Your task to perform on an android device: Search for "logitech g pro" on walmart.com, select the first entry, add it to the cart, then select checkout. Image 0: 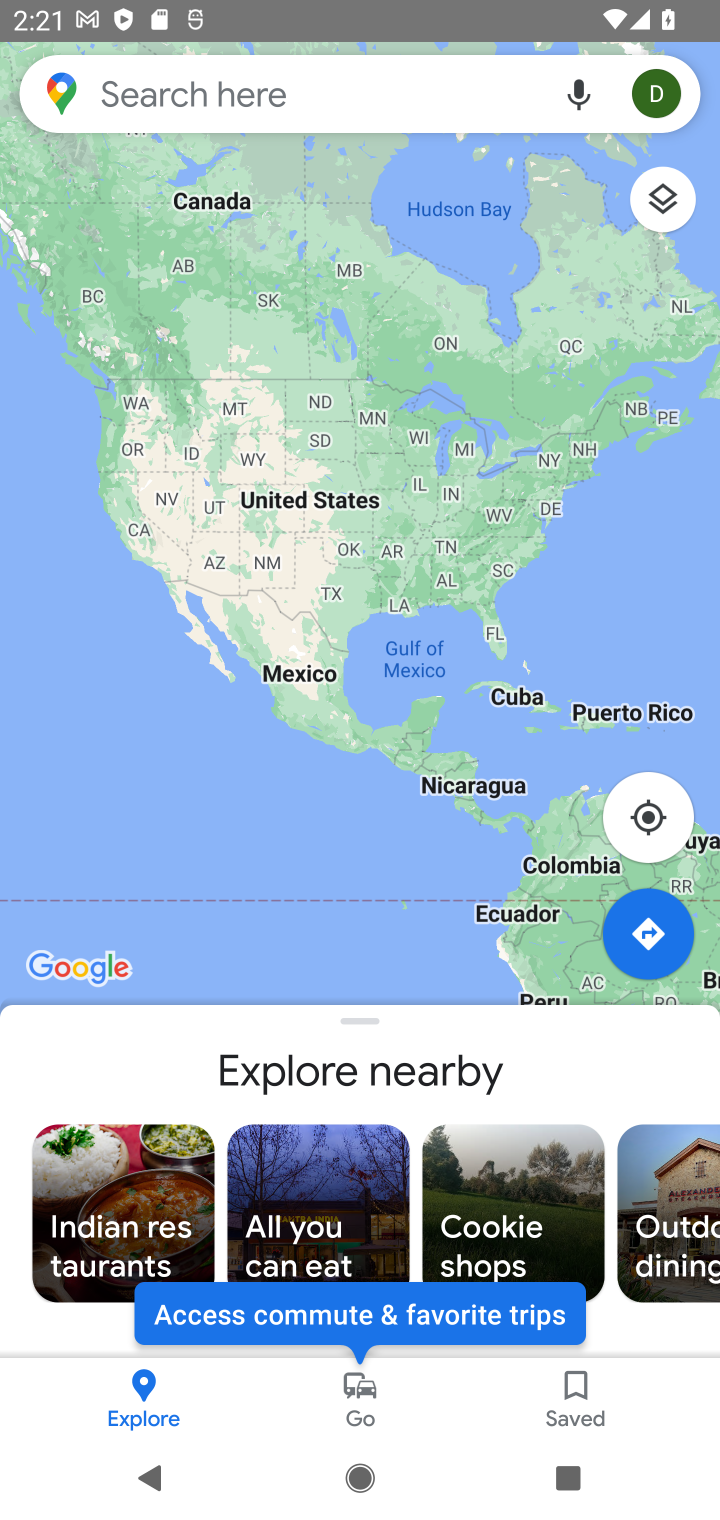
Step 0: press home button
Your task to perform on an android device: Search for "logitech g pro" on walmart.com, select the first entry, add it to the cart, then select checkout. Image 1: 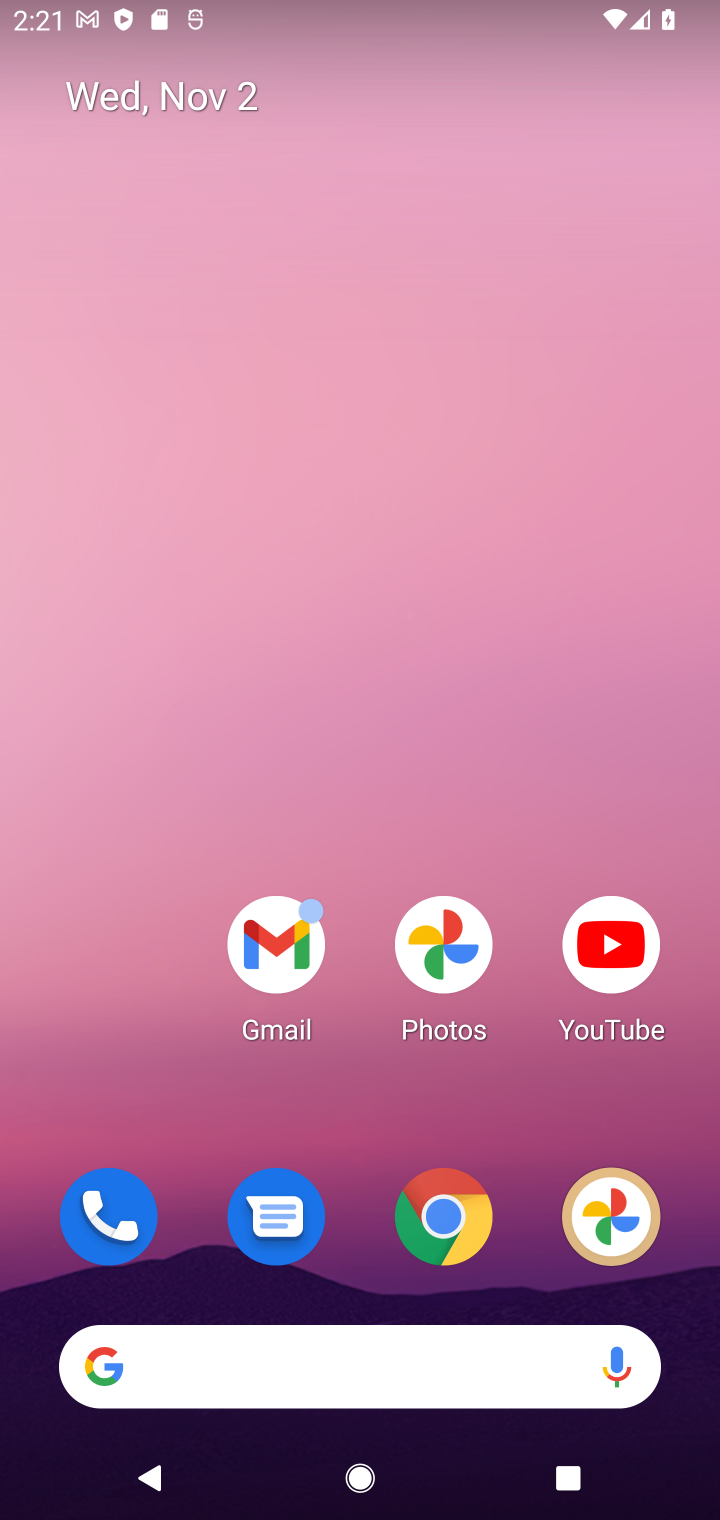
Step 1: click (442, 1228)
Your task to perform on an android device: Search for "logitech g pro" on walmart.com, select the first entry, add it to the cart, then select checkout. Image 2: 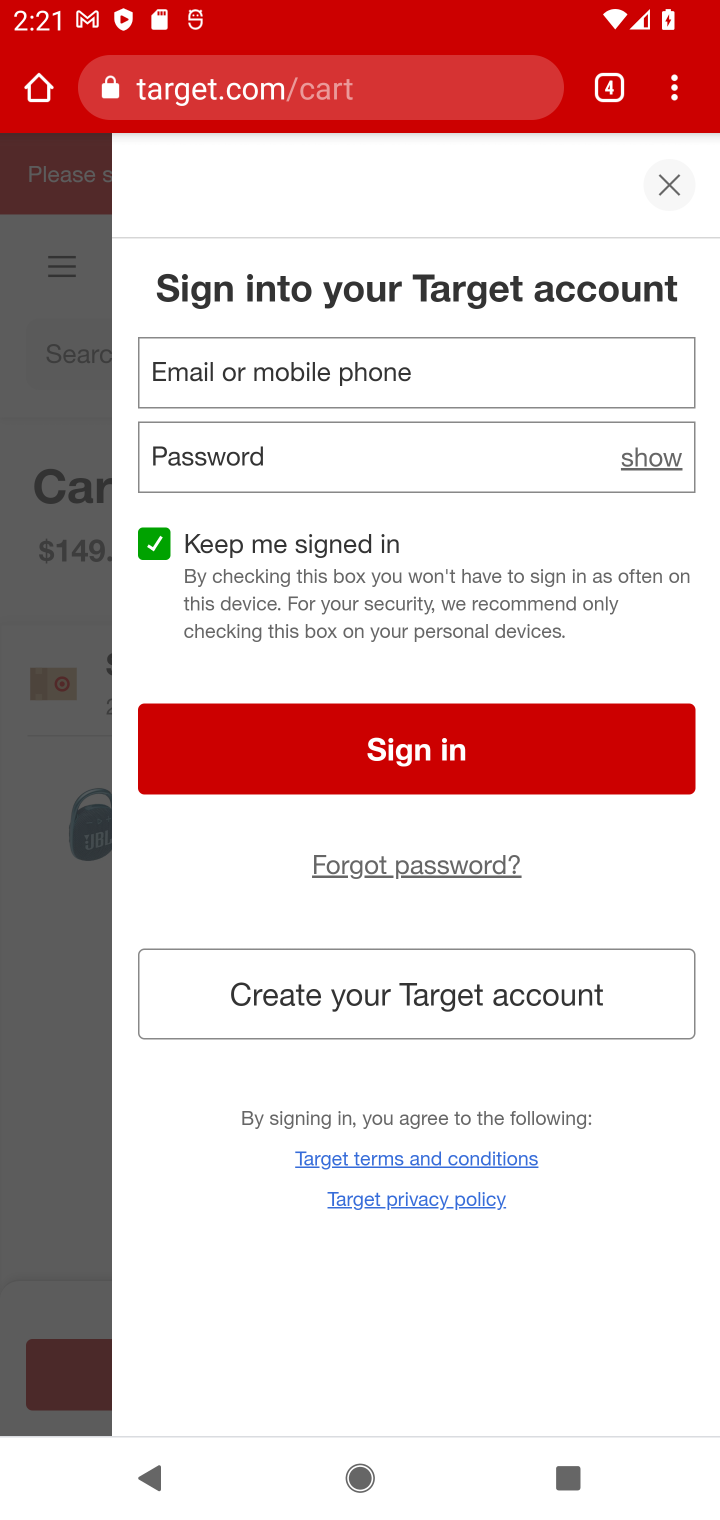
Step 2: click (595, 90)
Your task to perform on an android device: Search for "logitech g pro" on walmart.com, select the first entry, add it to the cart, then select checkout. Image 3: 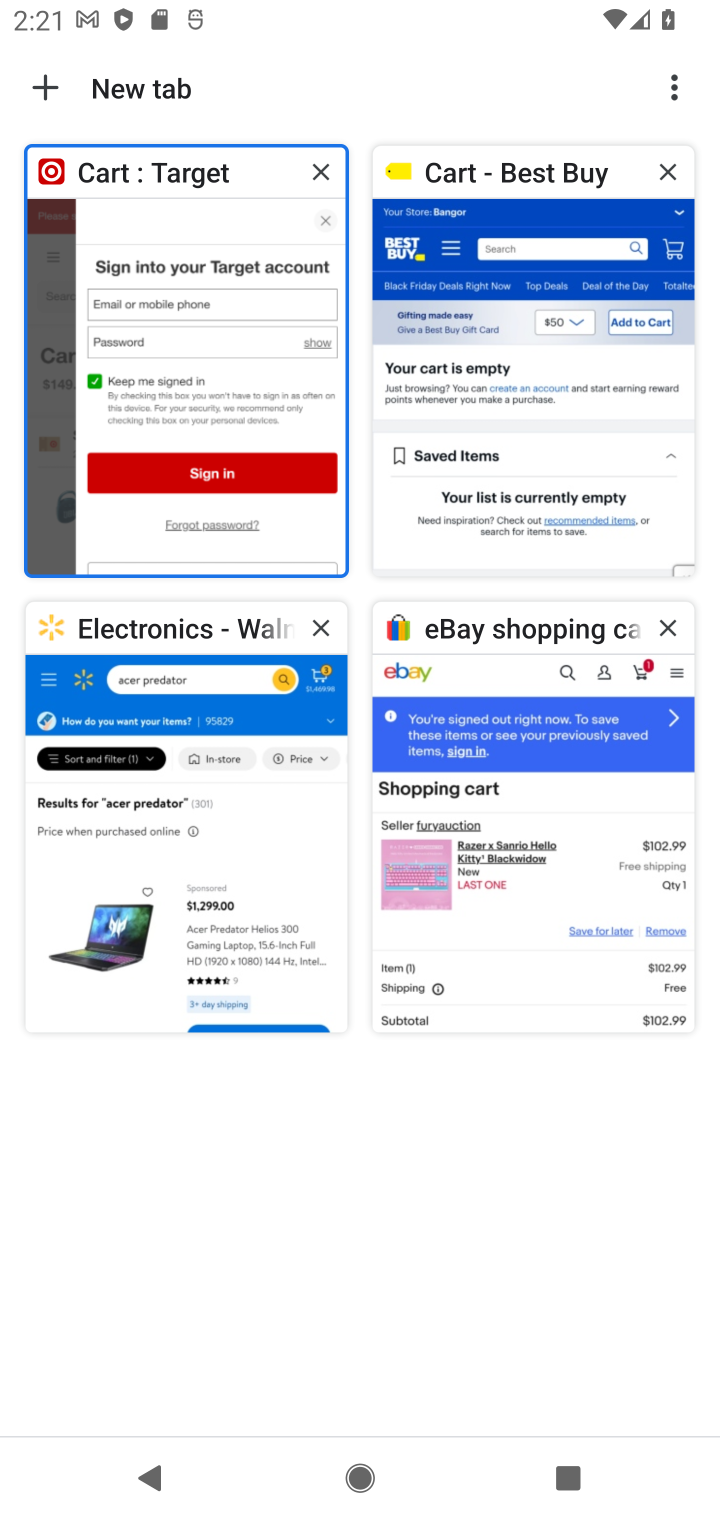
Step 3: click (182, 754)
Your task to perform on an android device: Search for "logitech g pro" on walmart.com, select the first entry, add it to the cart, then select checkout. Image 4: 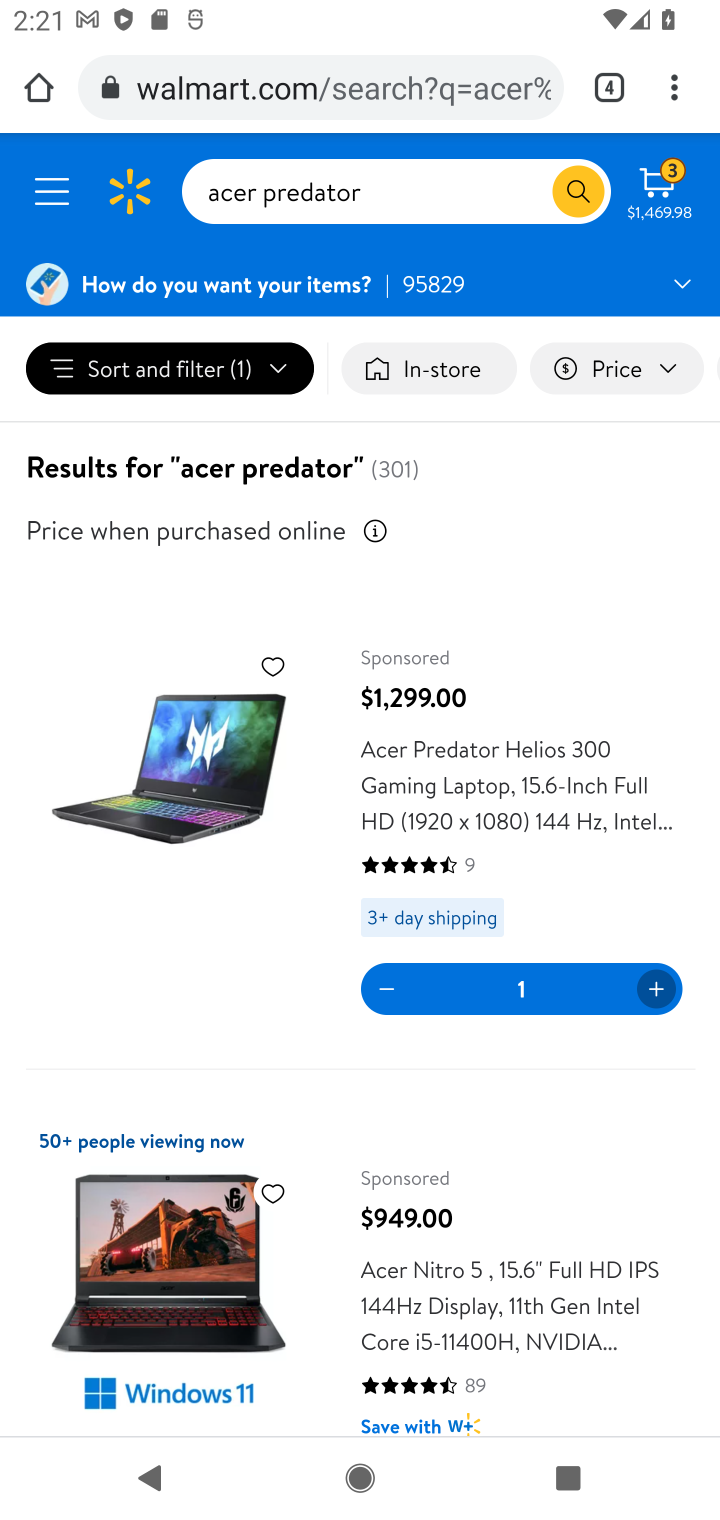
Step 4: click (328, 191)
Your task to perform on an android device: Search for "logitech g pro" on walmart.com, select the first entry, add it to the cart, then select checkout. Image 5: 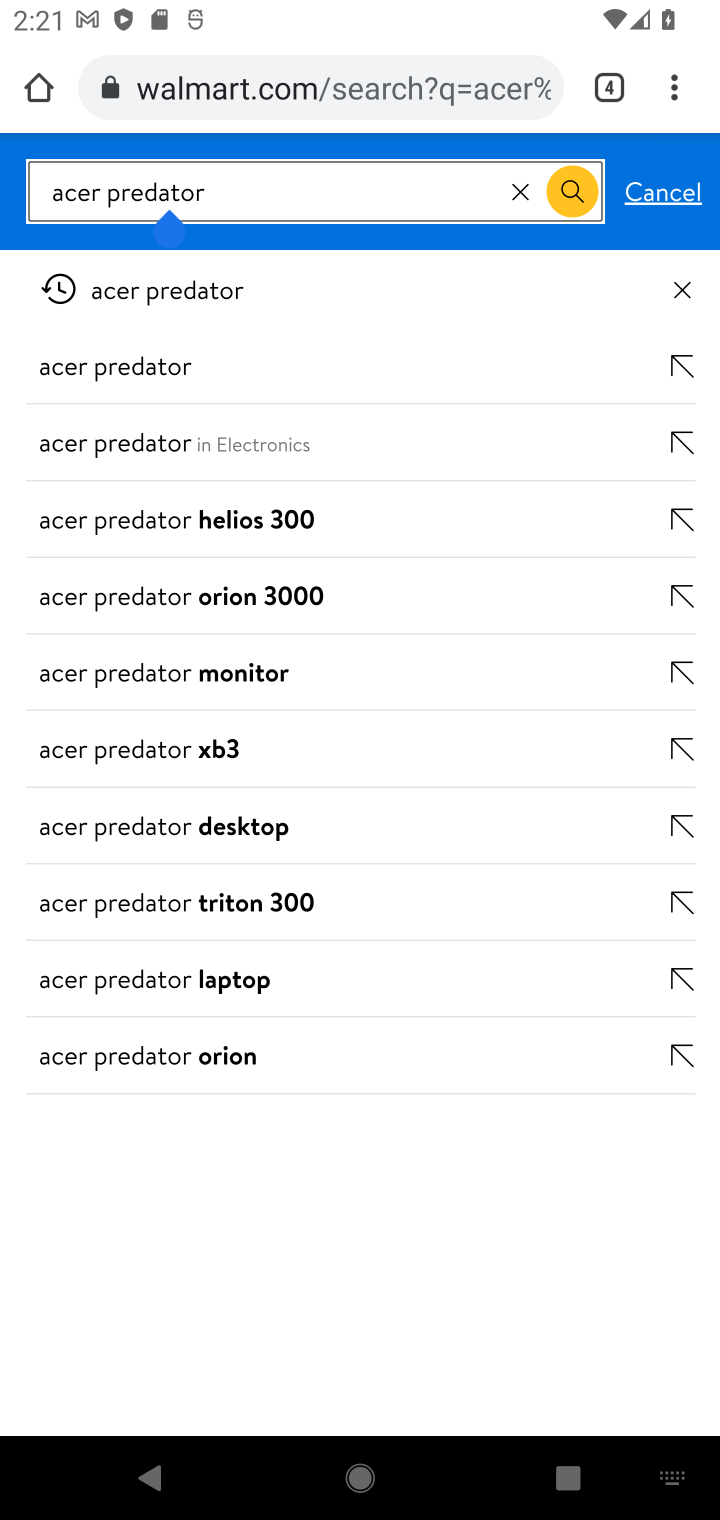
Step 5: click (513, 186)
Your task to perform on an android device: Search for "logitech g pro" on walmart.com, select the first entry, add it to the cart, then select checkout. Image 6: 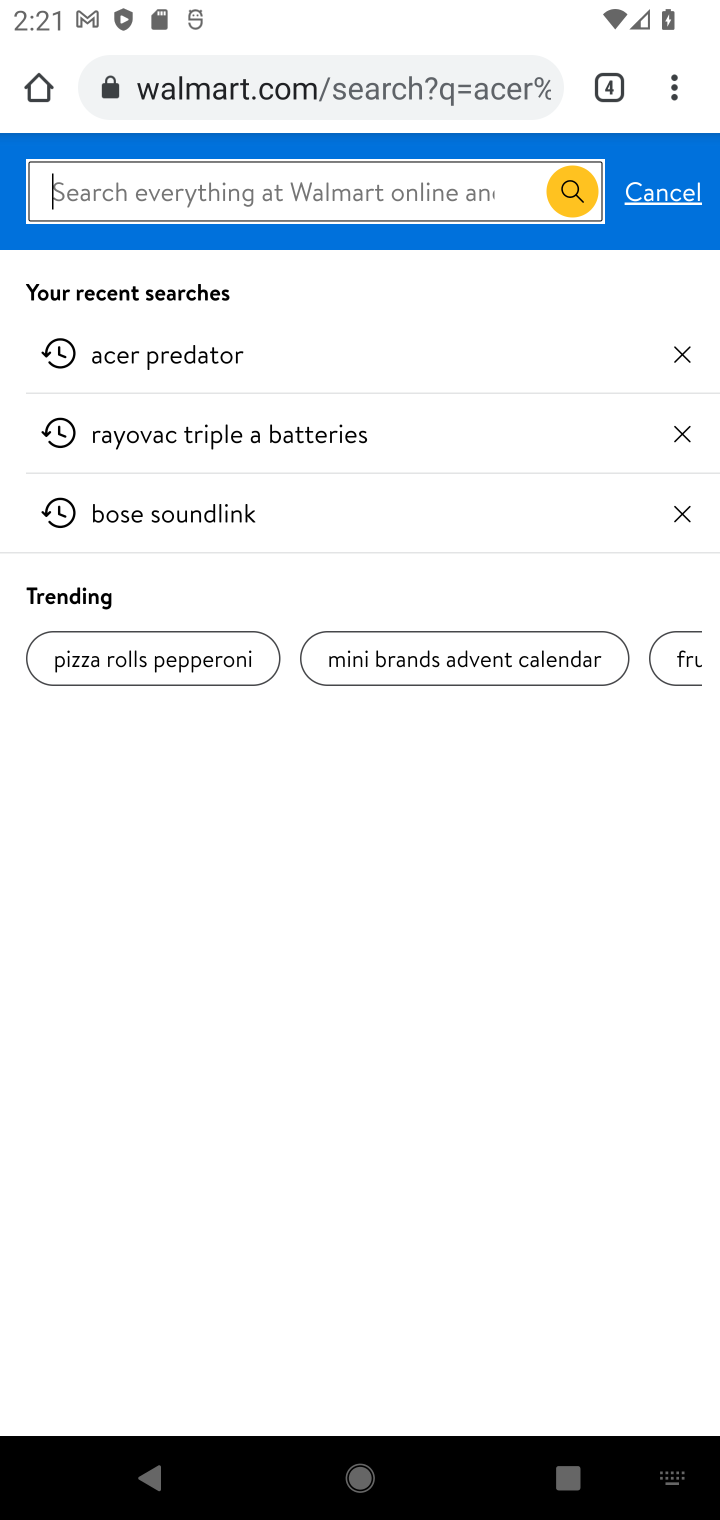
Step 6: type "logitech g pro"
Your task to perform on an android device: Search for "logitech g pro" on walmart.com, select the first entry, add it to the cart, then select checkout. Image 7: 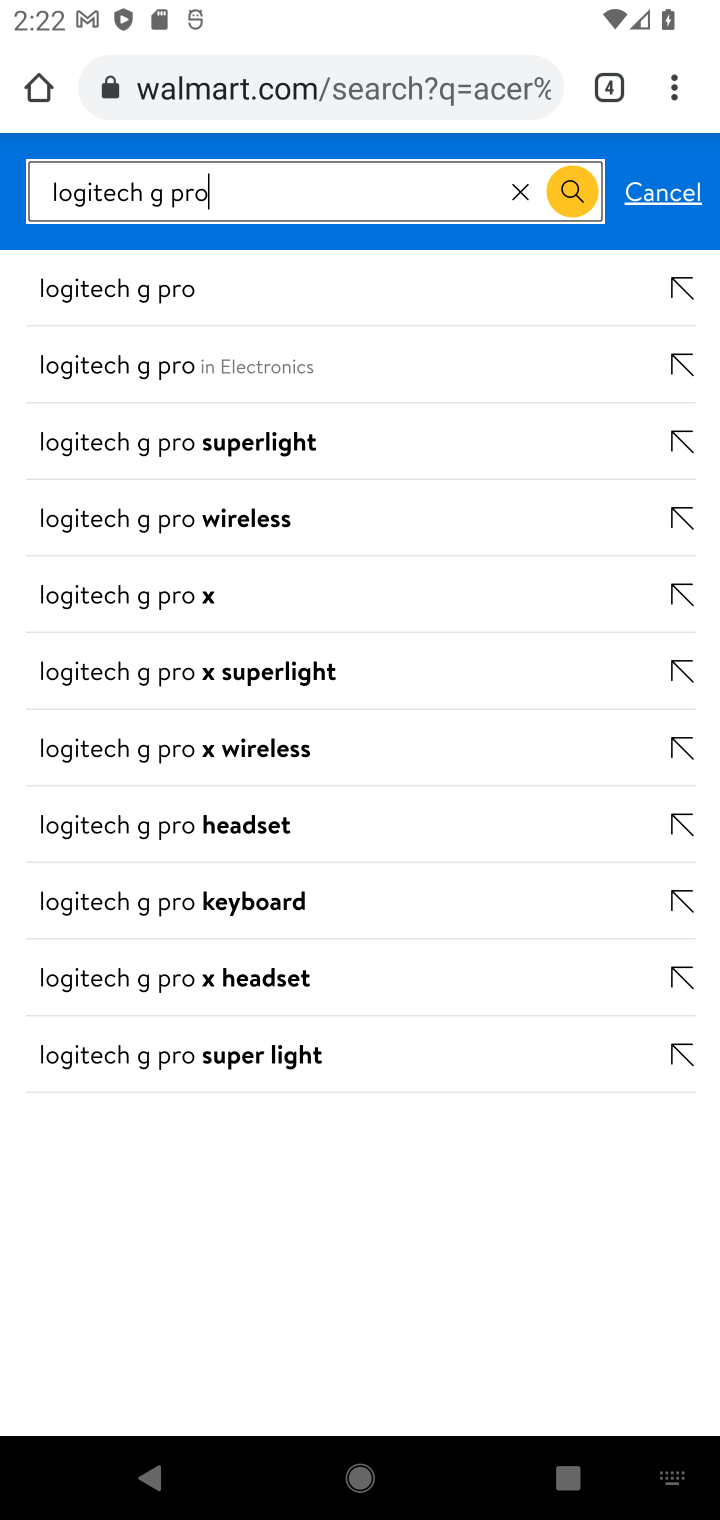
Step 7: click (185, 373)
Your task to perform on an android device: Search for "logitech g pro" on walmart.com, select the first entry, add it to the cart, then select checkout. Image 8: 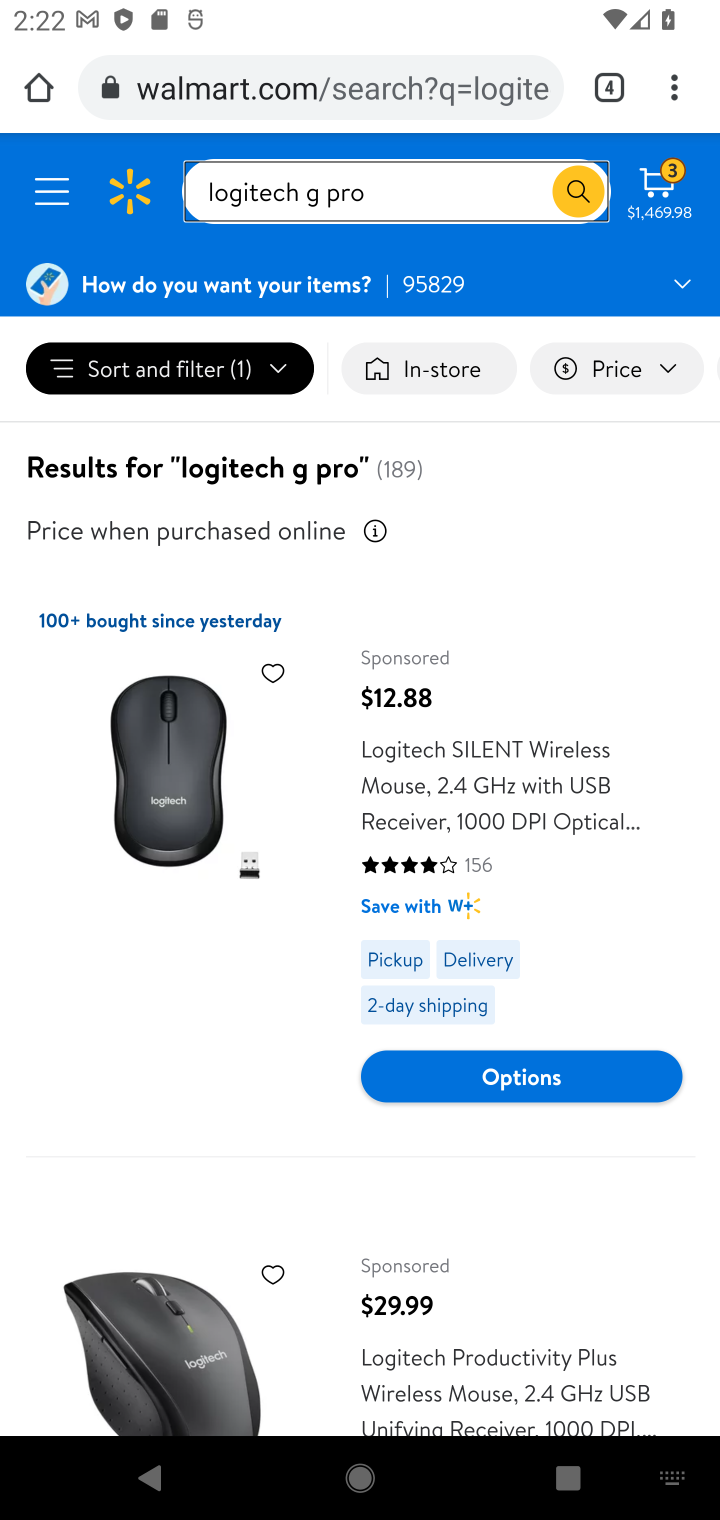
Step 8: click (502, 864)
Your task to perform on an android device: Search for "logitech g pro" on walmart.com, select the first entry, add it to the cart, then select checkout. Image 9: 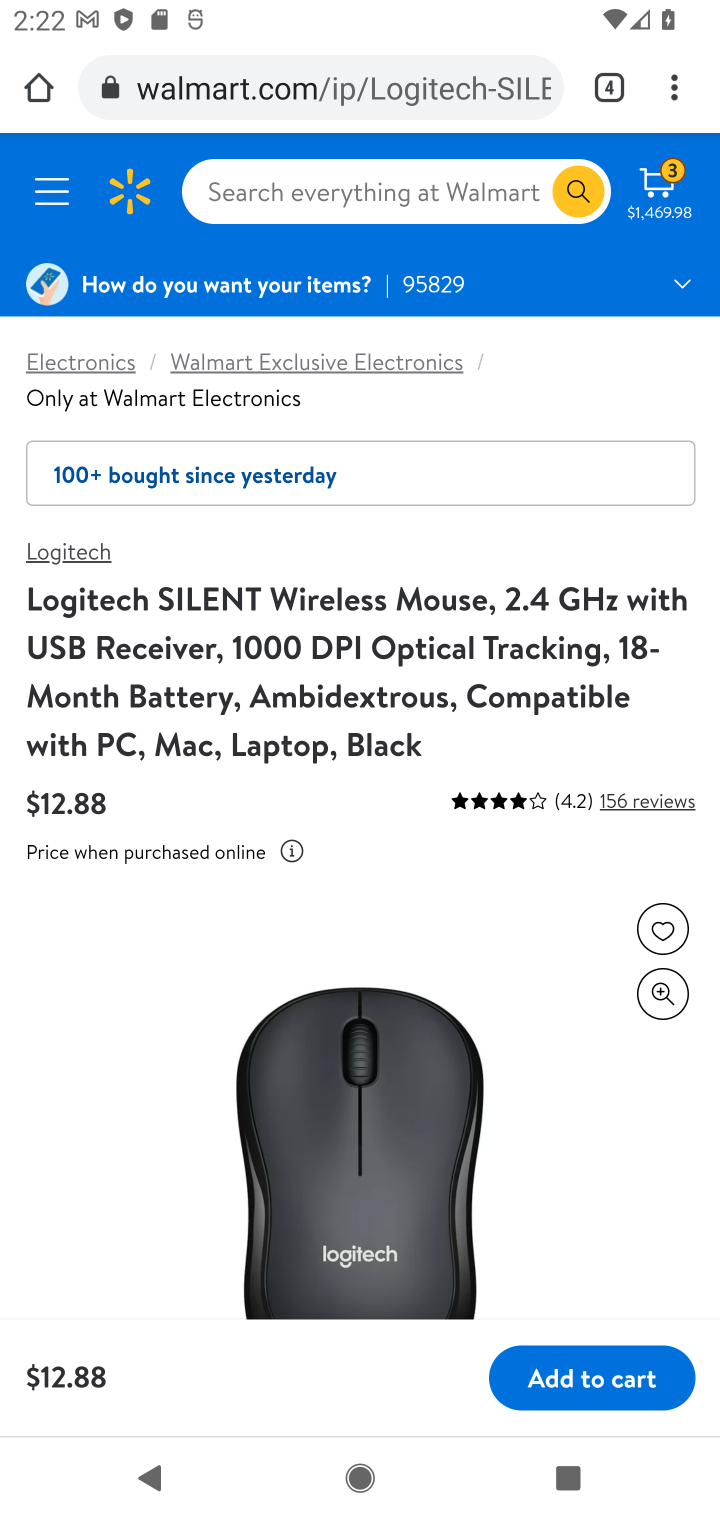
Step 9: click (562, 1387)
Your task to perform on an android device: Search for "logitech g pro" on walmart.com, select the first entry, add it to the cart, then select checkout. Image 10: 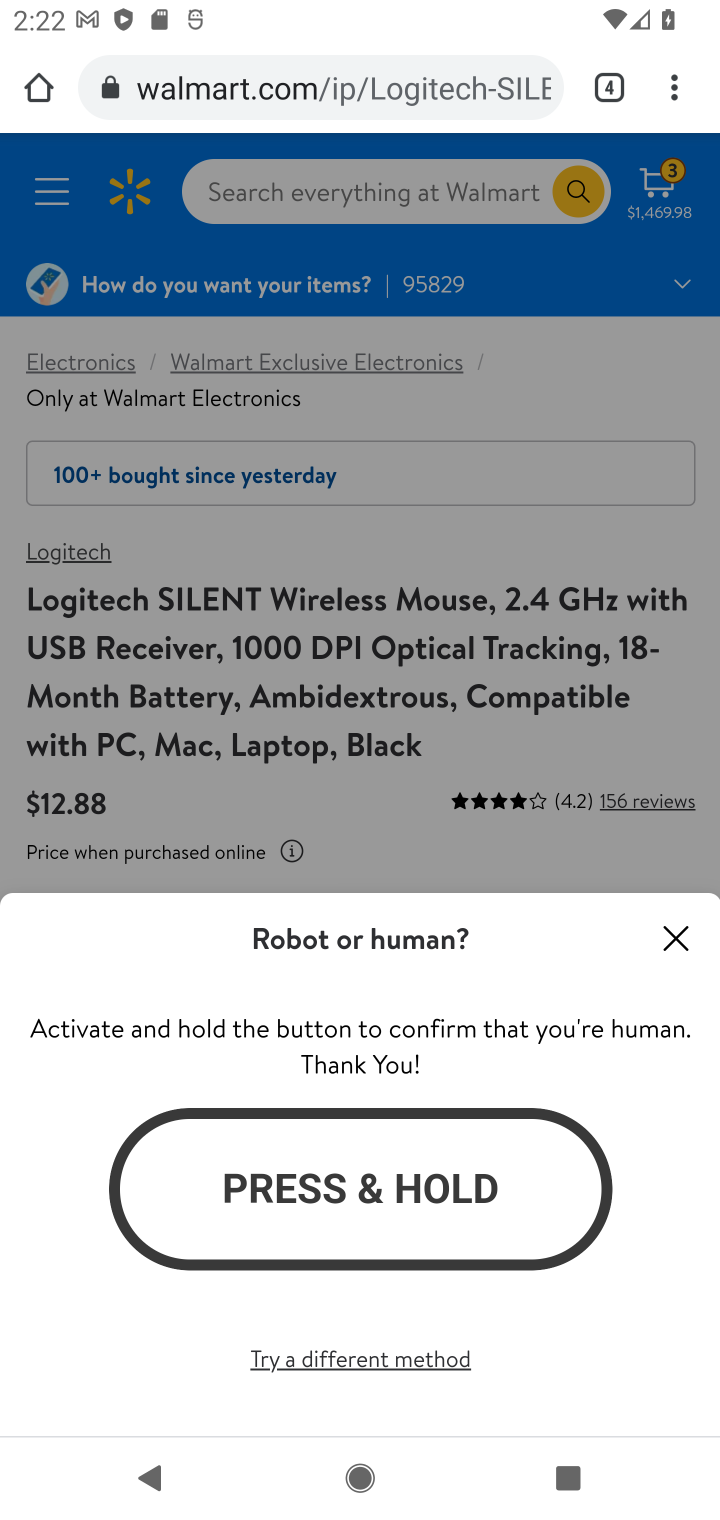
Step 10: click (677, 939)
Your task to perform on an android device: Search for "logitech g pro" on walmart.com, select the first entry, add it to the cart, then select checkout. Image 11: 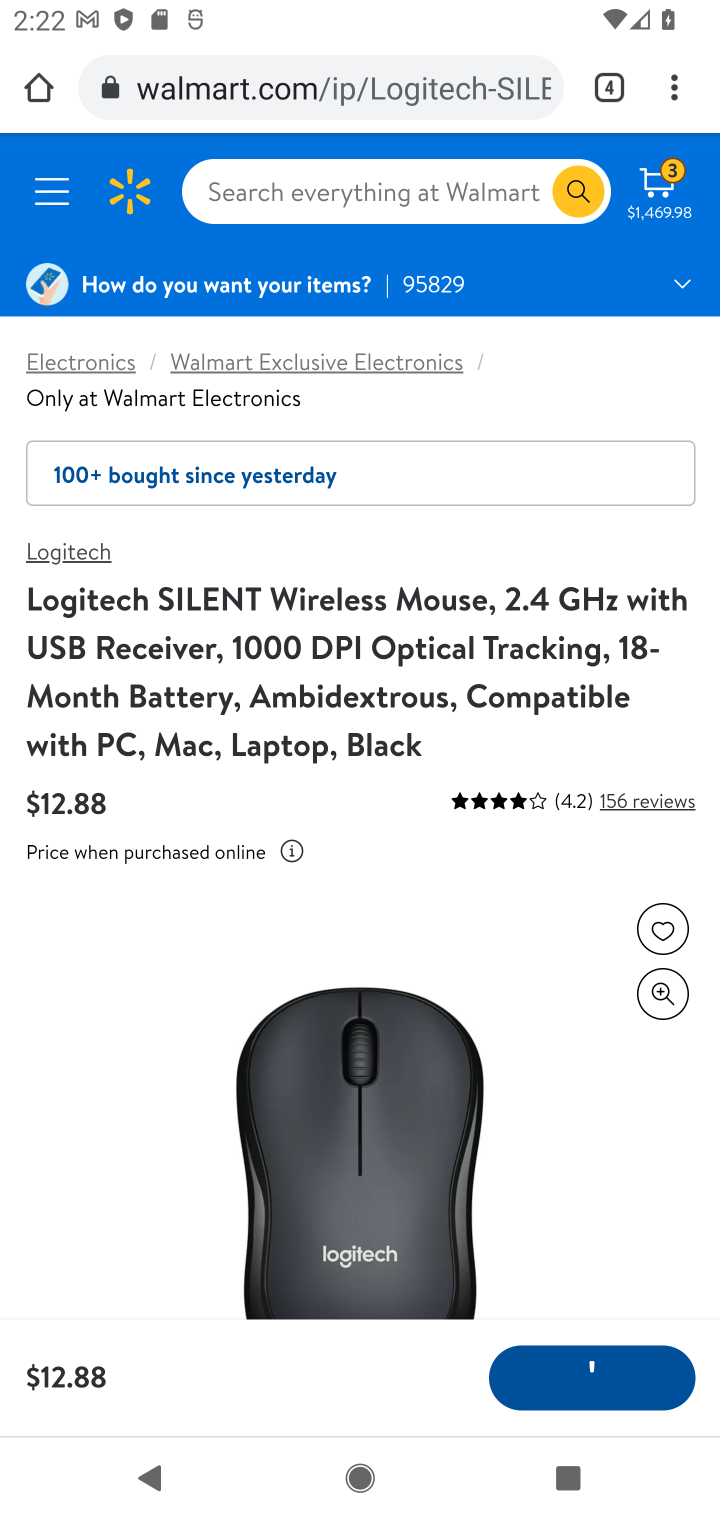
Step 11: task complete